Your task to perform on an android device: turn pop-ups on in chrome Image 0: 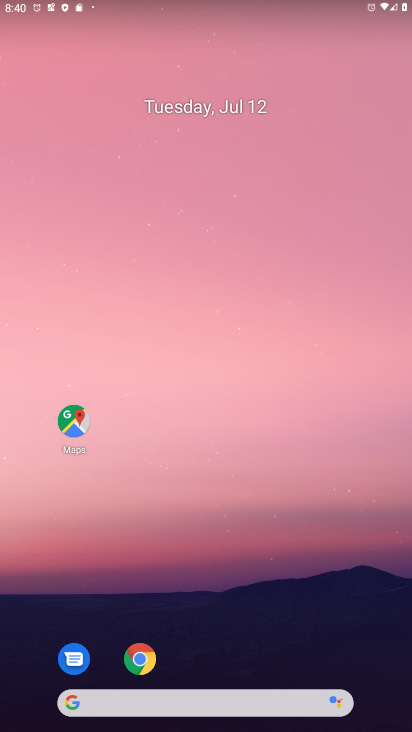
Step 0: click (142, 658)
Your task to perform on an android device: turn pop-ups on in chrome Image 1: 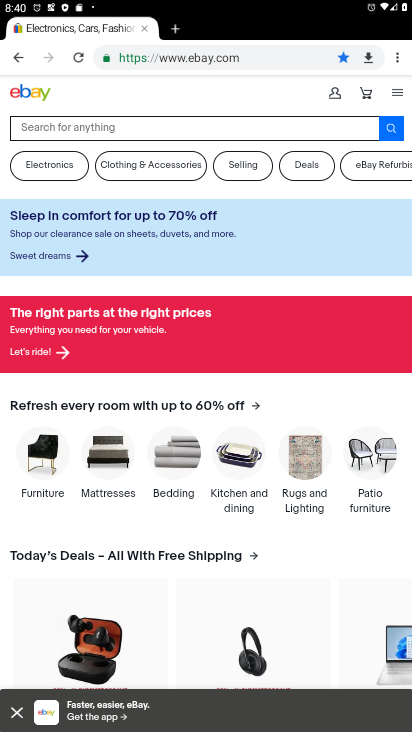
Step 1: click (396, 58)
Your task to perform on an android device: turn pop-ups on in chrome Image 2: 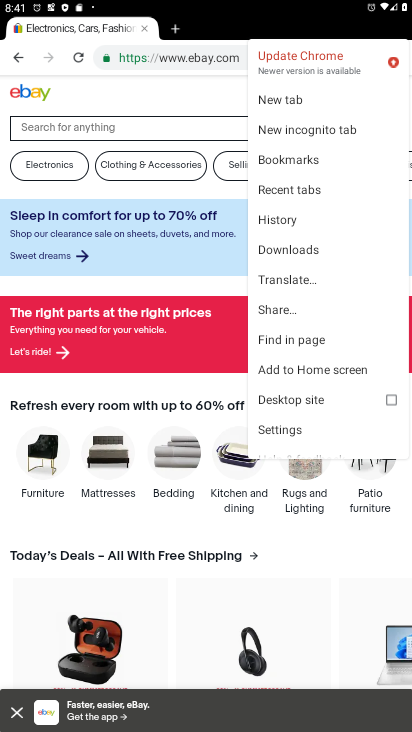
Step 2: click (289, 429)
Your task to perform on an android device: turn pop-ups on in chrome Image 3: 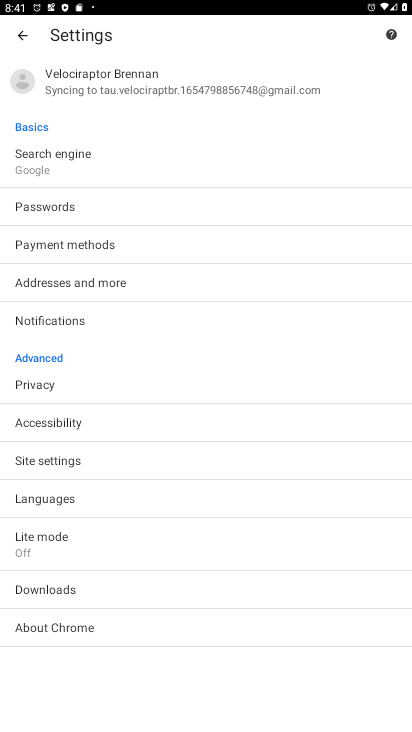
Step 3: click (59, 461)
Your task to perform on an android device: turn pop-ups on in chrome Image 4: 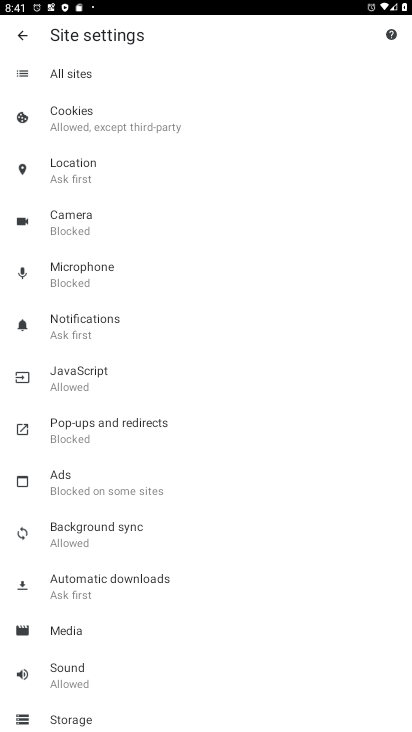
Step 4: click (85, 423)
Your task to perform on an android device: turn pop-ups on in chrome Image 5: 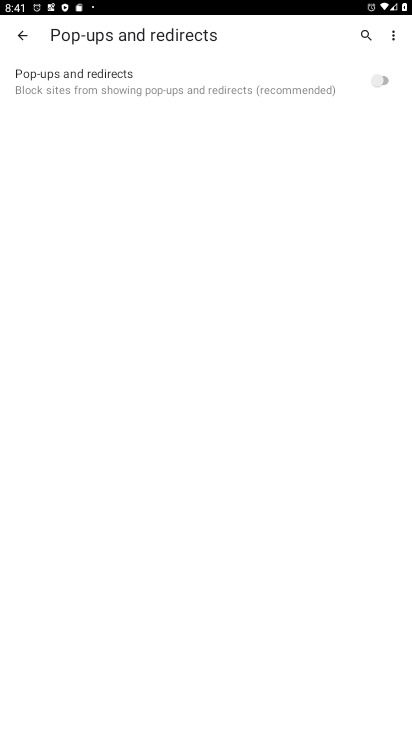
Step 5: click (378, 75)
Your task to perform on an android device: turn pop-ups on in chrome Image 6: 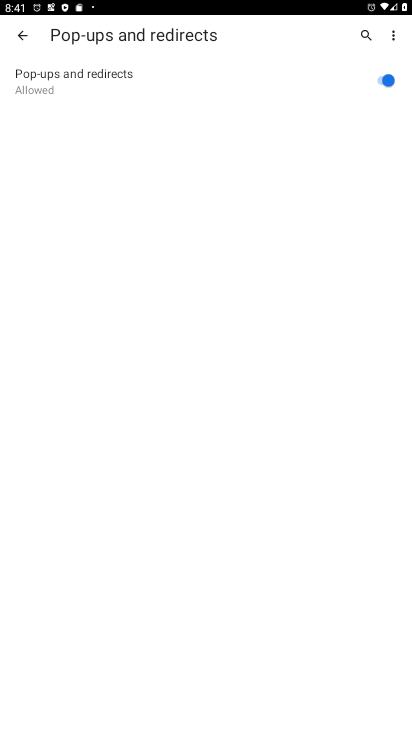
Step 6: task complete